Your task to perform on an android device: change the upload size in google photos Image 0: 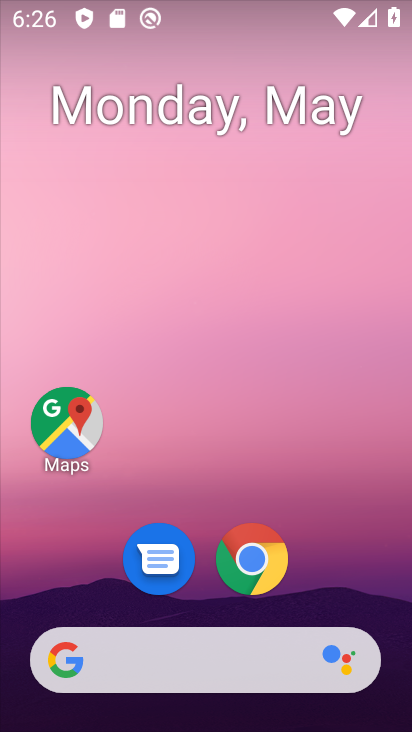
Step 0: drag from (391, 642) to (343, 93)
Your task to perform on an android device: change the upload size in google photos Image 1: 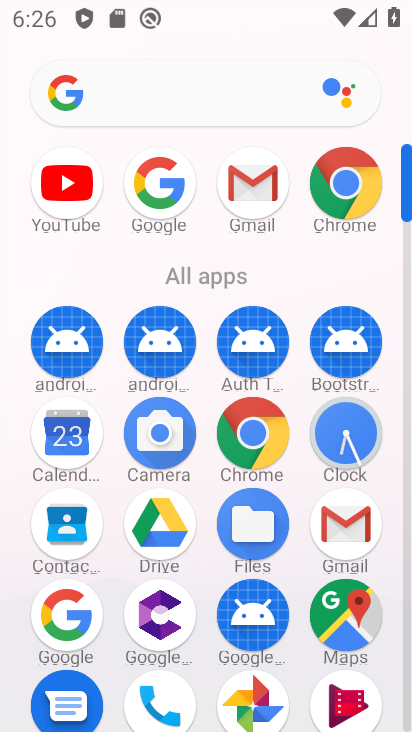
Step 1: click (260, 685)
Your task to perform on an android device: change the upload size in google photos Image 2: 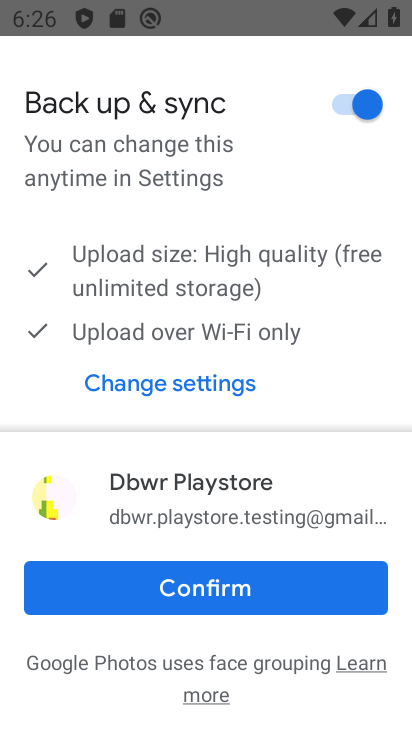
Step 2: click (247, 575)
Your task to perform on an android device: change the upload size in google photos Image 3: 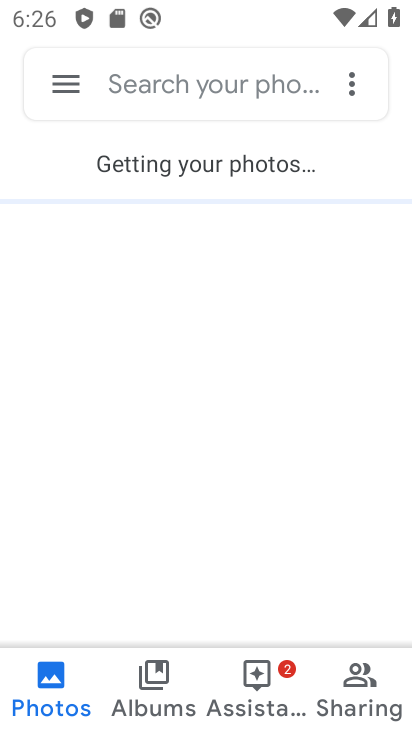
Step 3: click (59, 87)
Your task to perform on an android device: change the upload size in google photos Image 4: 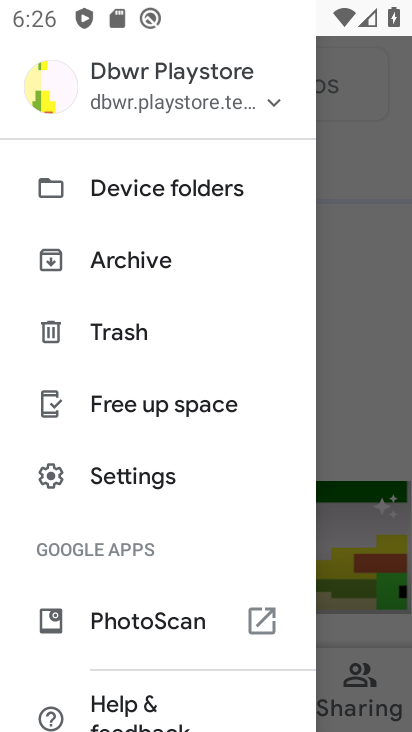
Step 4: drag from (116, 689) to (200, 147)
Your task to perform on an android device: change the upload size in google photos Image 5: 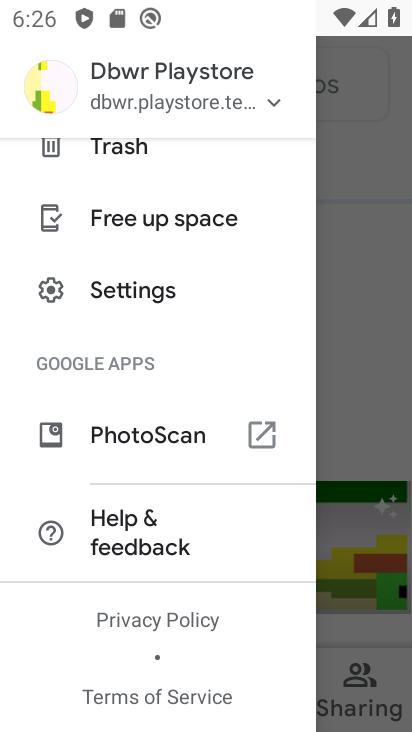
Step 5: drag from (135, 644) to (195, 136)
Your task to perform on an android device: change the upload size in google photos Image 6: 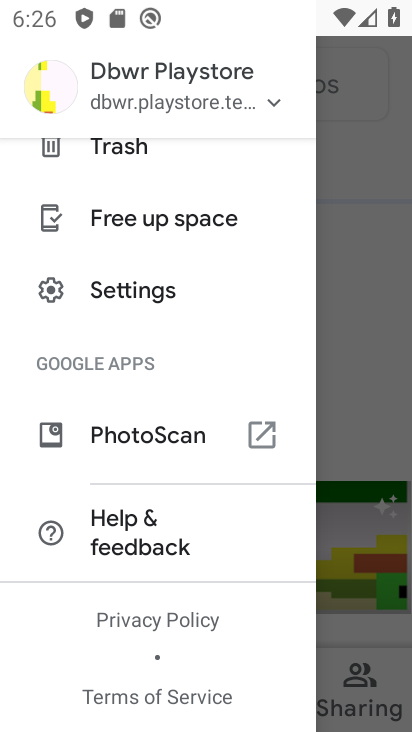
Step 6: click (136, 281)
Your task to perform on an android device: change the upload size in google photos Image 7: 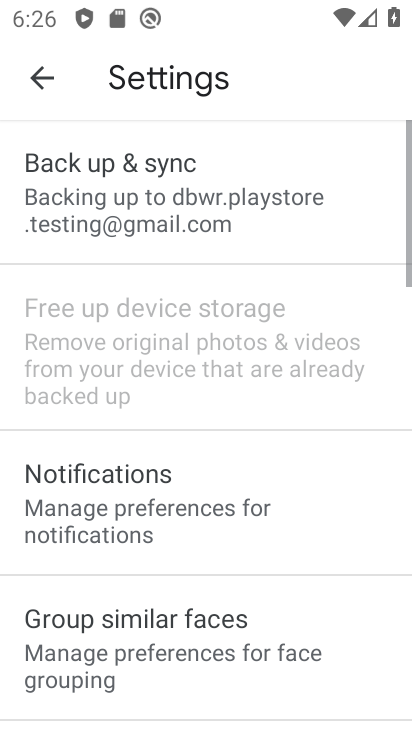
Step 7: click (154, 193)
Your task to perform on an android device: change the upload size in google photos Image 8: 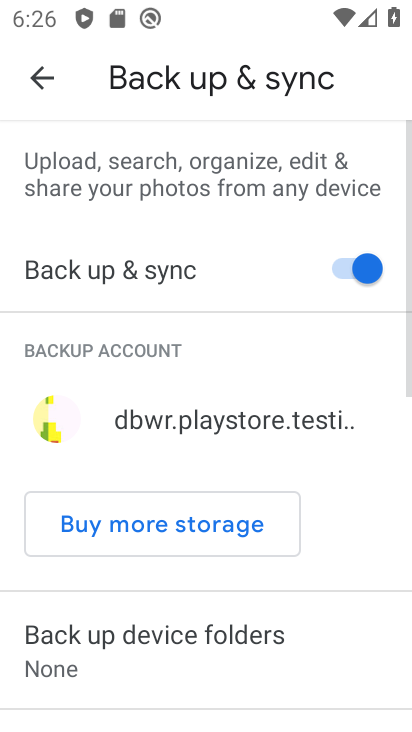
Step 8: drag from (151, 649) to (229, 140)
Your task to perform on an android device: change the upload size in google photos Image 9: 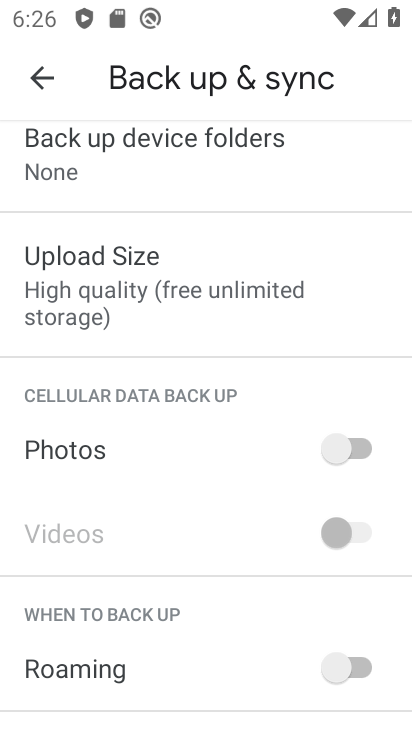
Step 9: click (190, 292)
Your task to perform on an android device: change the upload size in google photos Image 10: 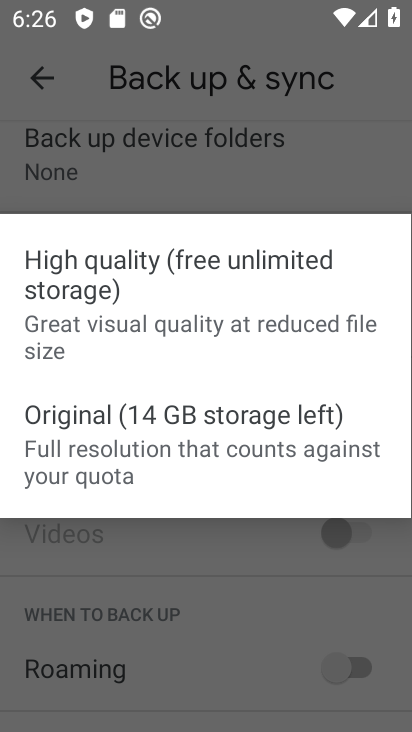
Step 10: click (161, 343)
Your task to perform on an android device: change the upload size in google photos Image 11: 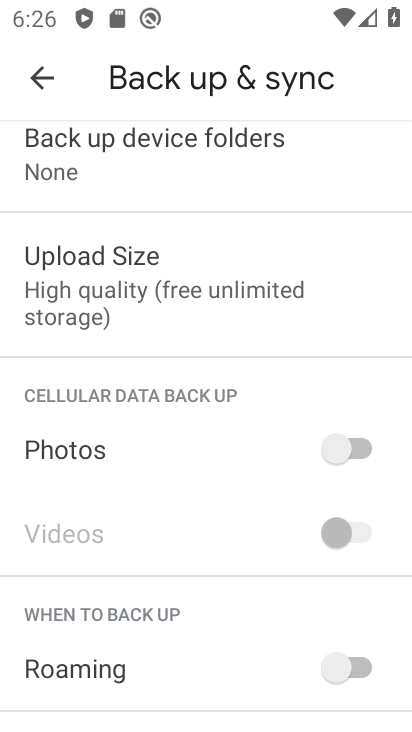
Step 11: task complete